Your task to perform on an android device: turn off location history Image 0: 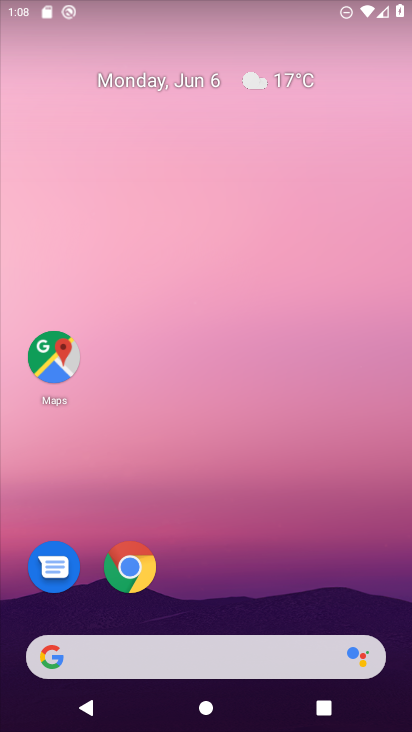
Step 0: drag from (240, 719) to (241, 204)
Your task to perform on an android device: turn off location history Image 1: 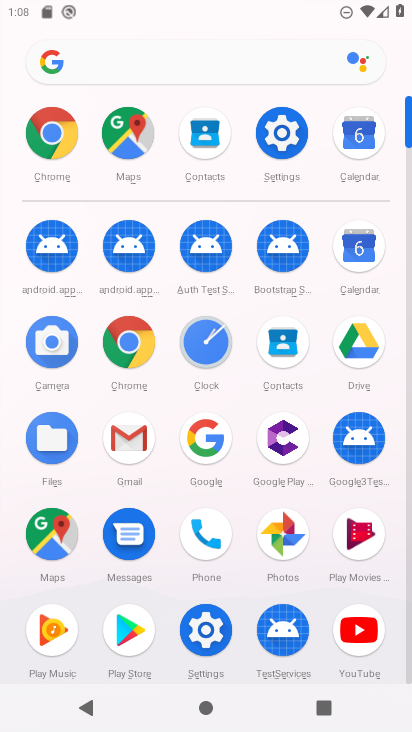
Step 1: click (284, 134)
Your task to perform on an android device: turn off location history Image 2: 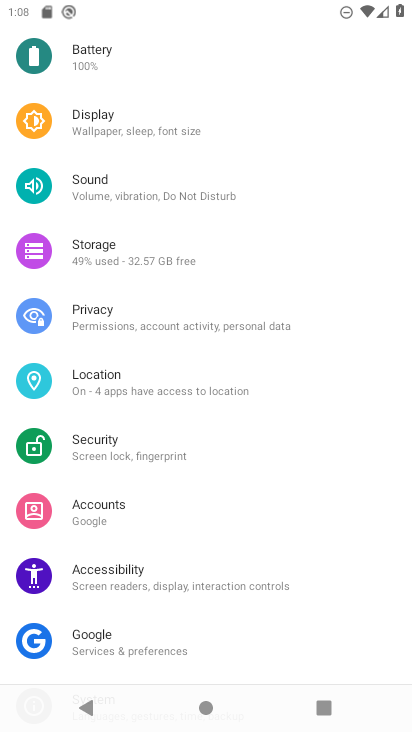
Step 2: click (116, 369)
Your task to perform on an android device: turn off location history Image 3: 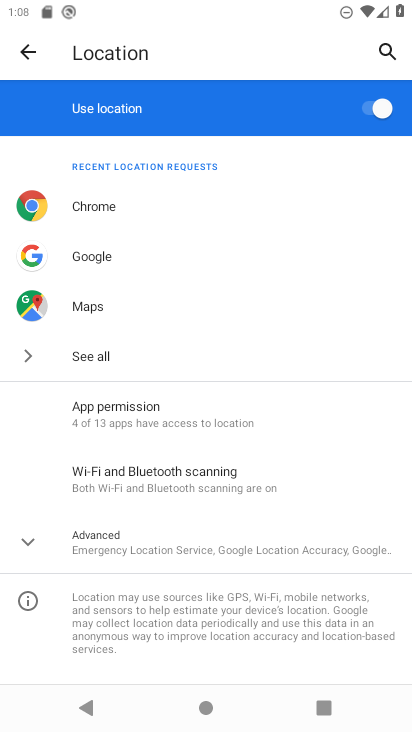
Step 3: click (99, 544)
Your task to perform on an android device: turn off location history Image 4: 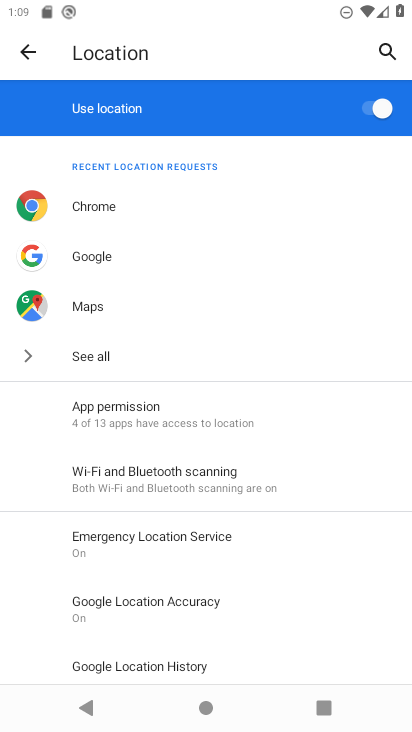
Step 4: click (157, 668)
Your task to perform on an android device: turn off location history Image 5: 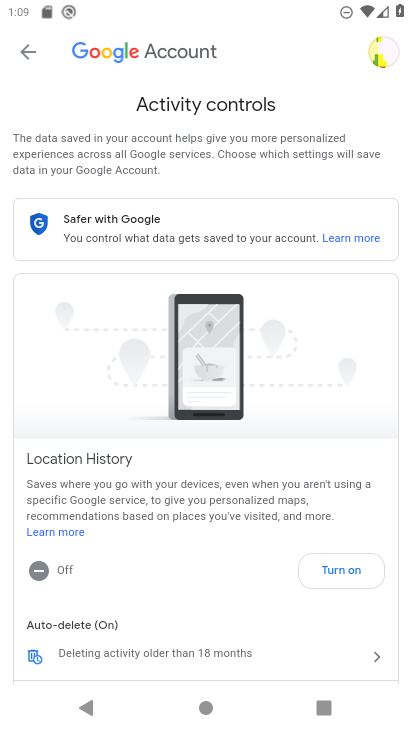
Step 5: task complete